Your task to perform on an android device: Go to location settings Image 0: 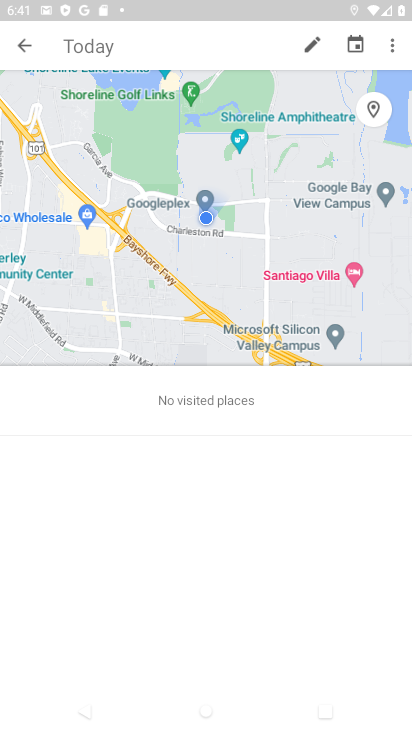
Step 0: press home button
Your task to perform on an android device: Go to location settings Image 1: 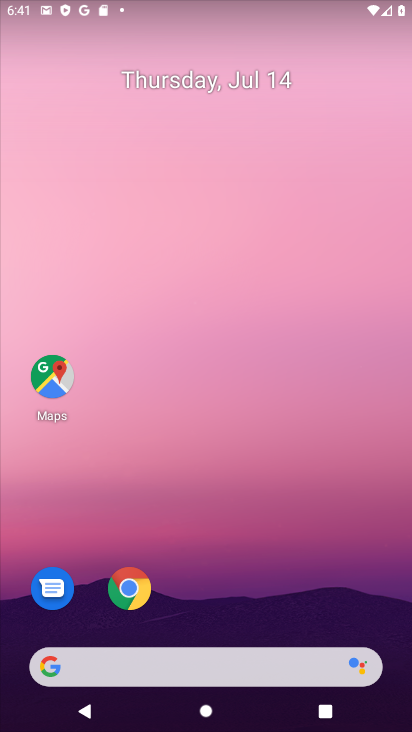
Step 1: drag from (194, 589) to (107, 113)
Your task to perform on an android device: Go to location settings Image 2: 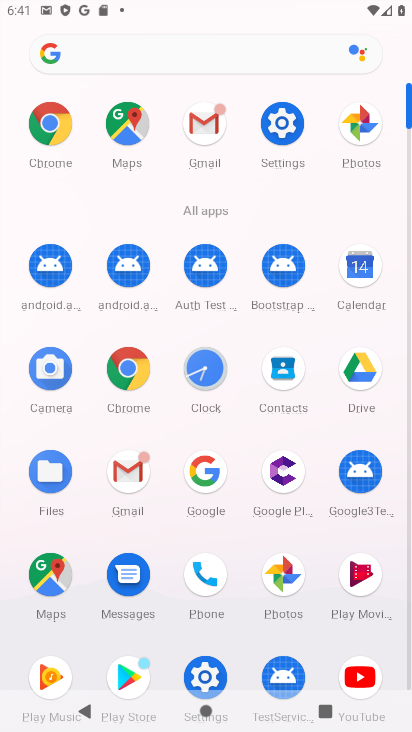
Step 2: click (283, 126)
Your task to perform on an android device: Go to location settings Image 3: 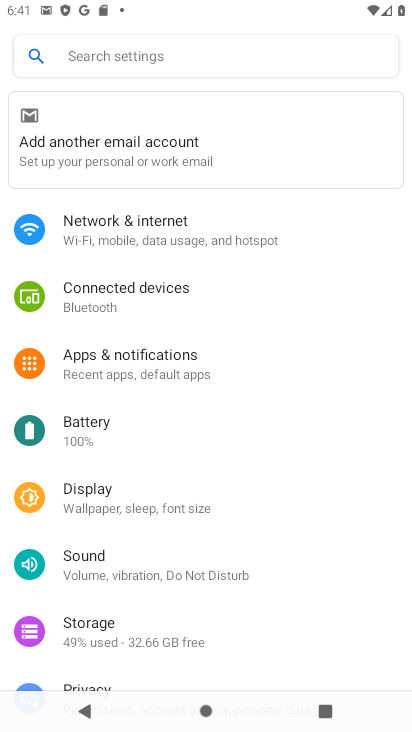
Step 3: drag from (238, 609) to (213, 219)
Your task to perform on an android device: Go to location settings Image 4: 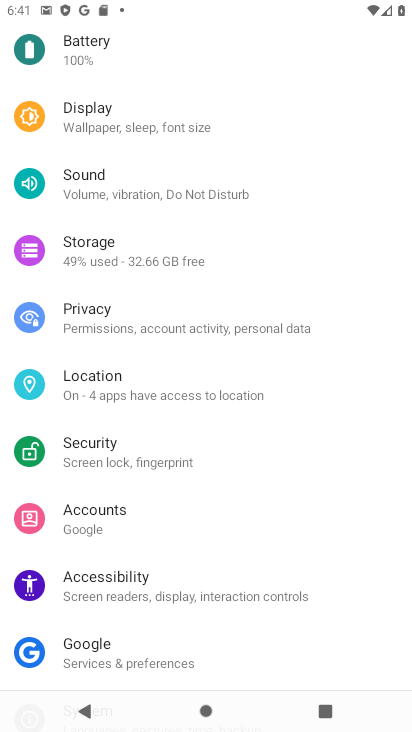
Step 4: click (76, 376)
Your task to perform on an android device: Go to location settings Image 5: 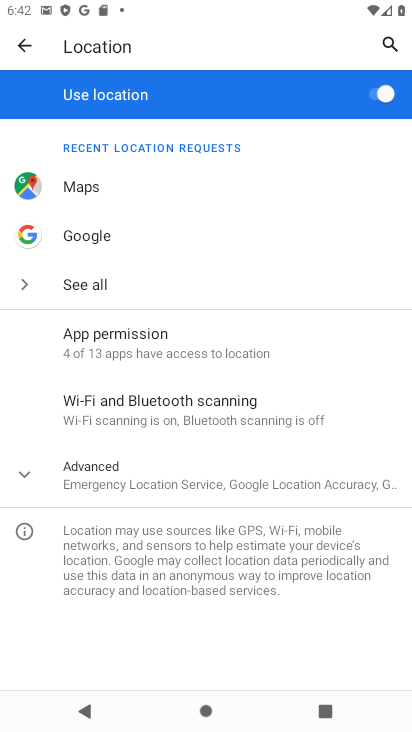
Step 5: task complete